Your task to perform on an android device: Go to internet settings Image 0: 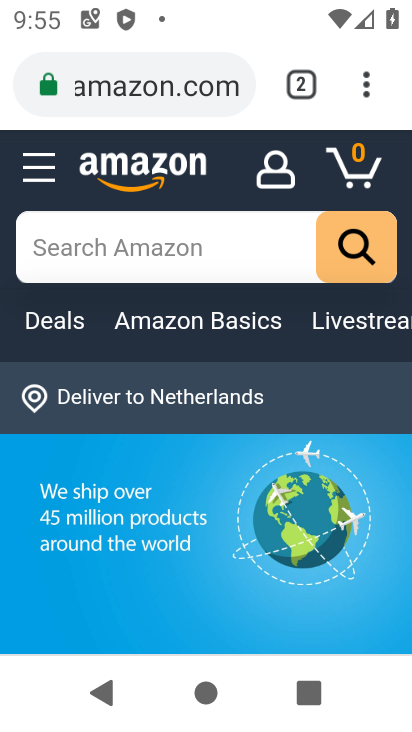
Step 0: click (360, 90)
Your task to perform on an android device: Go to internet settings Image 1: 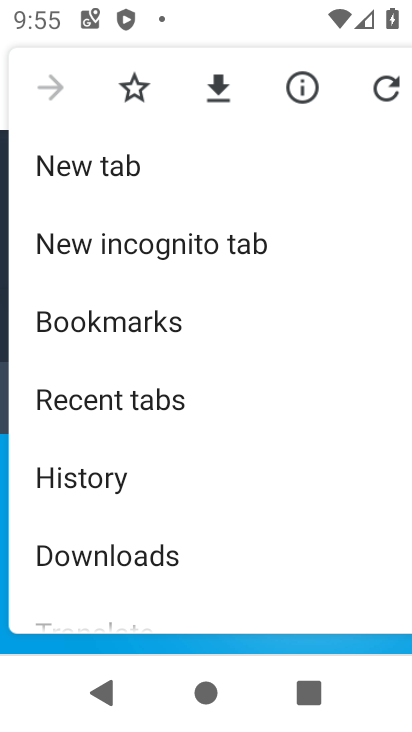
Step 1: drag from (181, 526) to (220, 131)
Your task to perform on an android device: Go to internet settings Image 2: 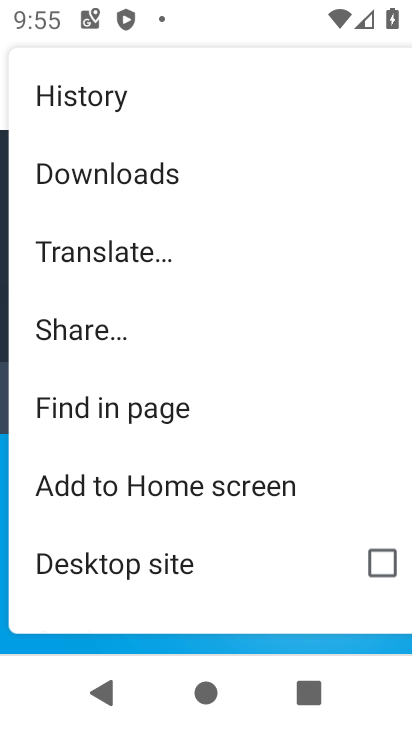
Step 2: drag from (166, 554) to (262, 118)
Your task to perform on an android device: Go to internet settings Image 3: 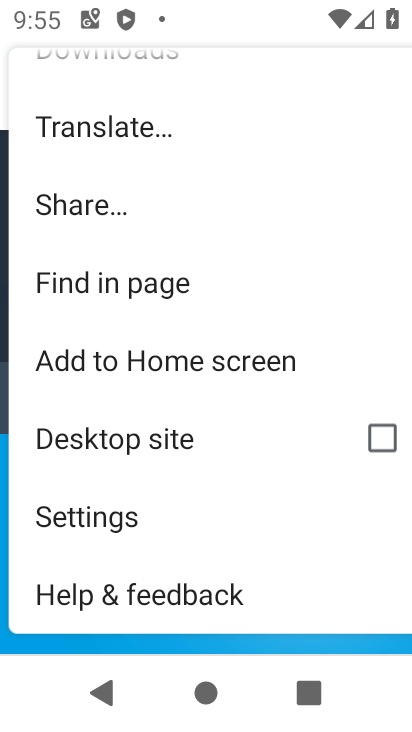
Step 3: click (90, 534)
Your task to perform on an android device: Go to internet settings Image 4: 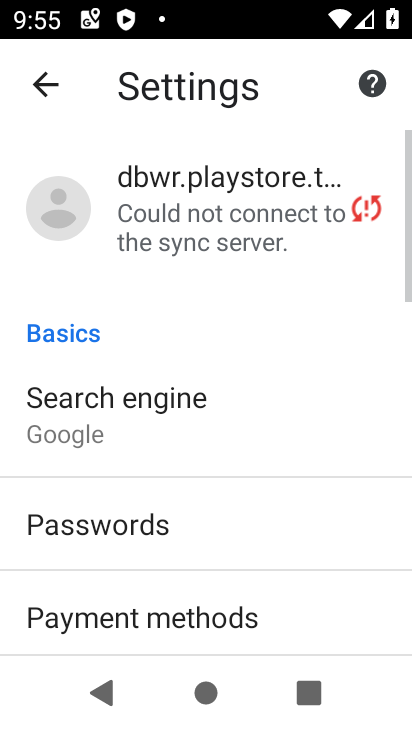
Step 4: drag from (154, 560) to (270, 91)
Your task to perform on an android device: Go to internet settings Image 5: 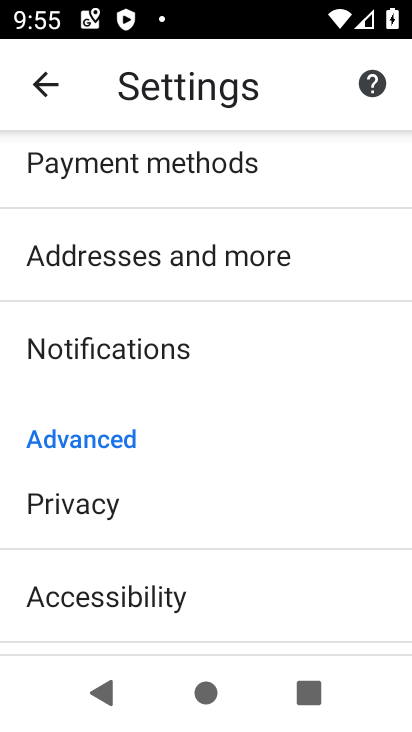
Step 5: drag from (216, 562) to (217, 161)
Your task to perform on an android device: Go to internet settings Image 6: 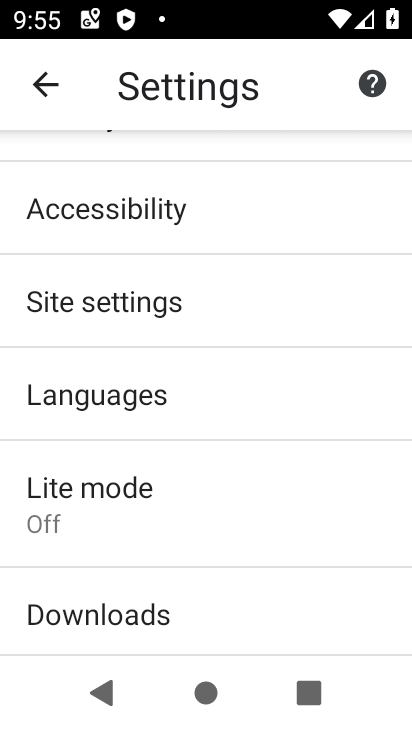
Step 6: click (120, 304)
Your task to perform on an android device: Go to internet settings Image 7: 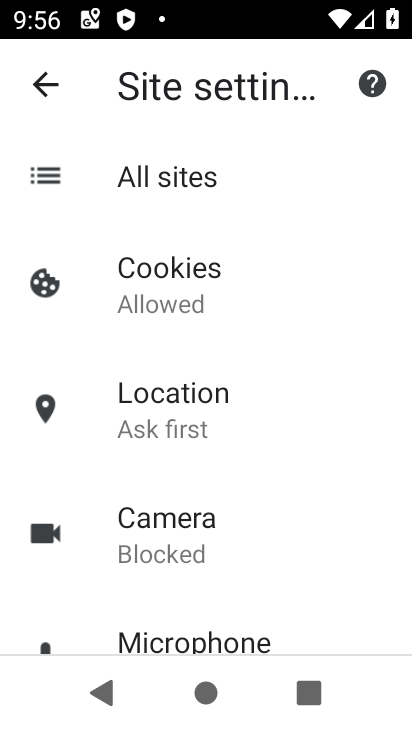
Step 7: click (157, 286)
Your task to perform on an android device: Go to internet settings Image 8: 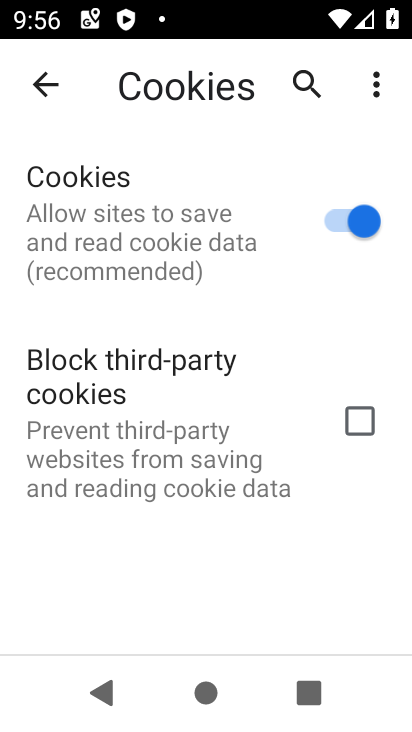
Step 8: task complete